Your task to perform on an android device: Show me productivity apps on the Play Store Image 0: 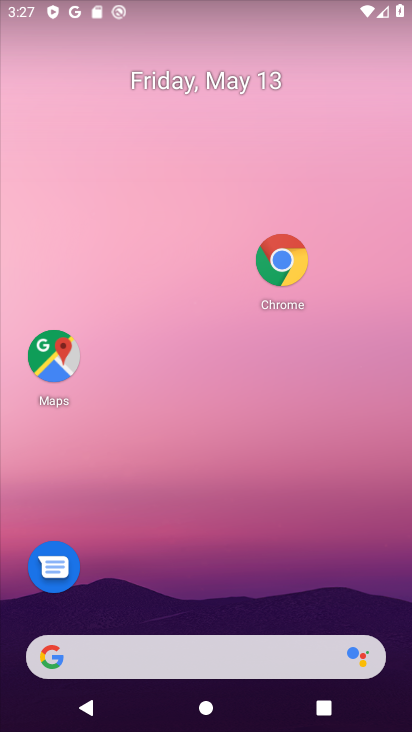
Step 0: drag from (274, 538) to (225, 58)
Your task to perform on an android device: Show me productivity apps on the Play Store Image 1: 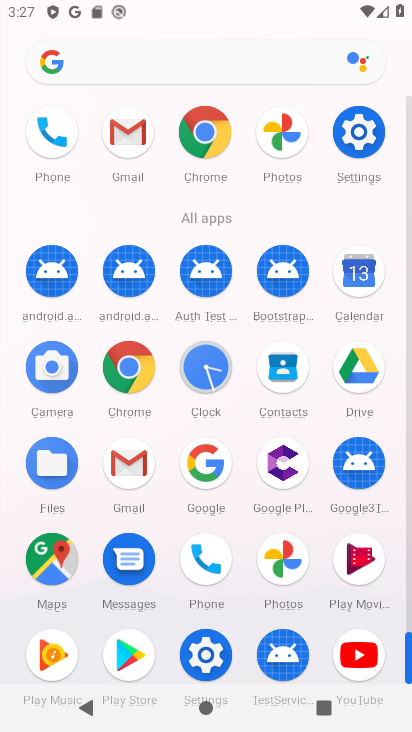
Step 1: click (135, 642)
Your task to perform on an android device: Show me productivity apps on the Play Store Image 2: 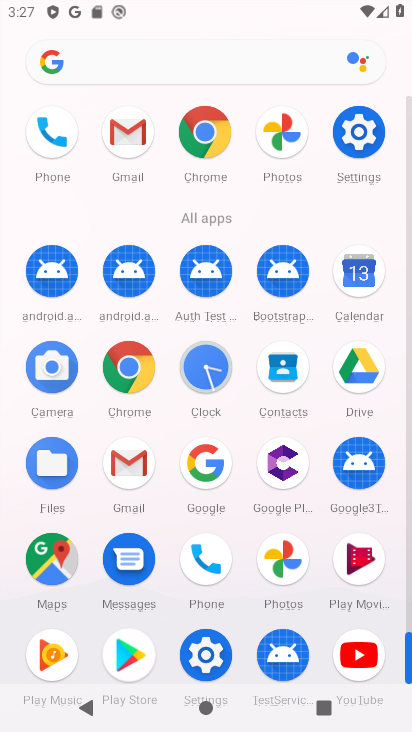
Step 2: click (134, 642)
Your task to perform on an android device: Show me productivity apps on the Play Store Image 3: 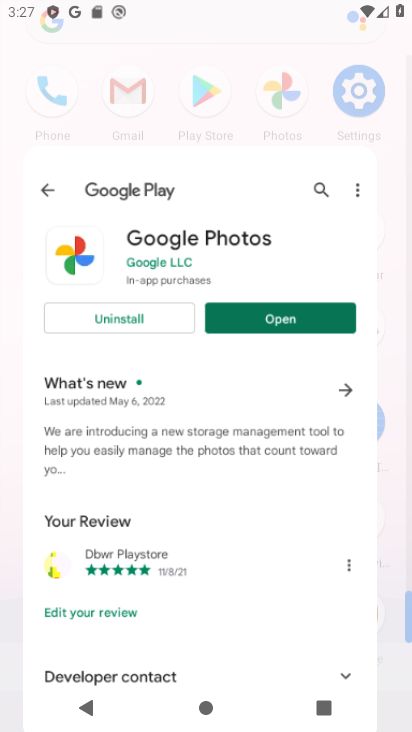
Step 3: click (134, 642)
Your task to perform on an android device: Show me productivity apps on the Play Store Image 4: 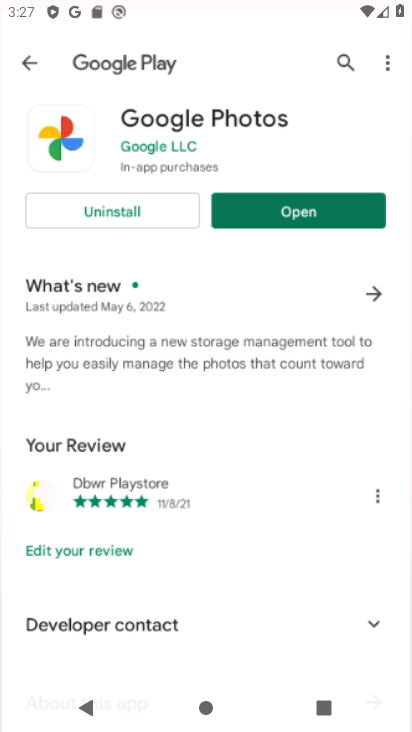
Step 4: click (134, 642)
Your task to perform on an android device: Show me productivity apps on the Play Store Image 5: 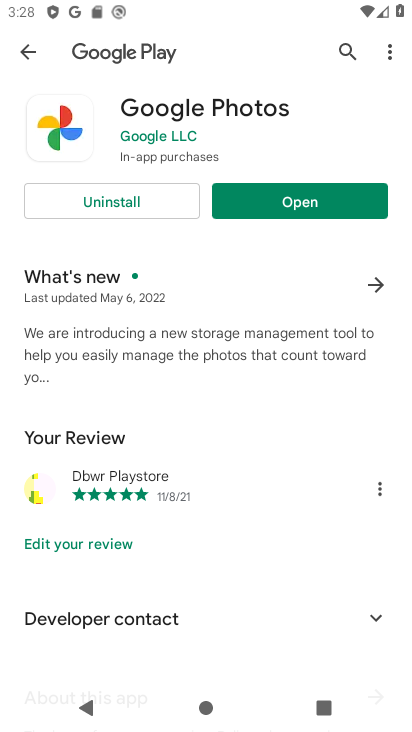
Step 5: click (304, 191)
Your task to perform on an android device: Show me productivity apps on the Play Store Image 6: 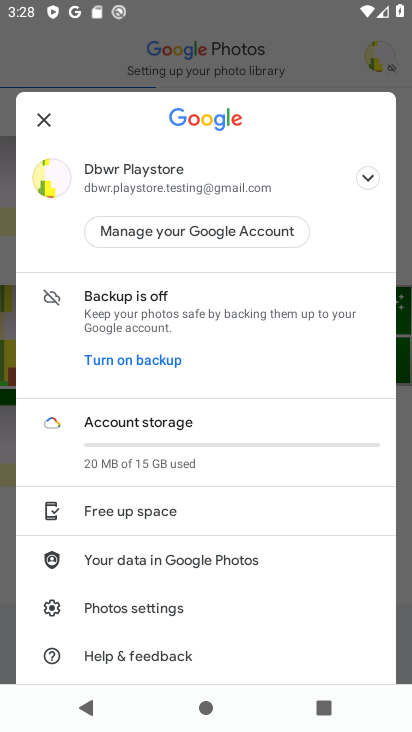
Step 6: press back button
Your task to perform on an android device: Show me productivity apps on the Play Store Image 7: 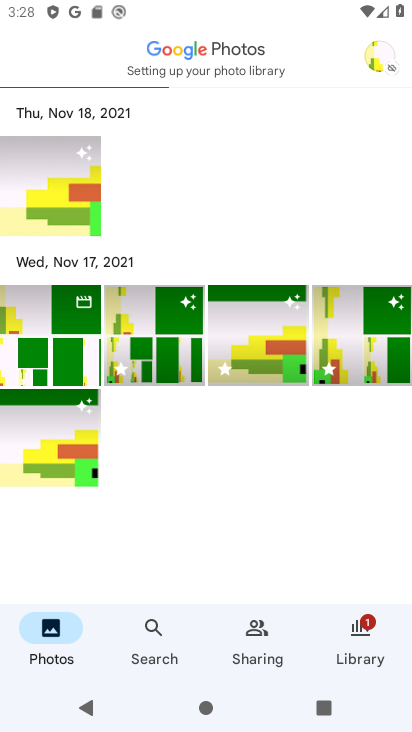
Step 7: press back button
Your task to perform on an android device: Show me productivity apps on the Play Store Image 8: 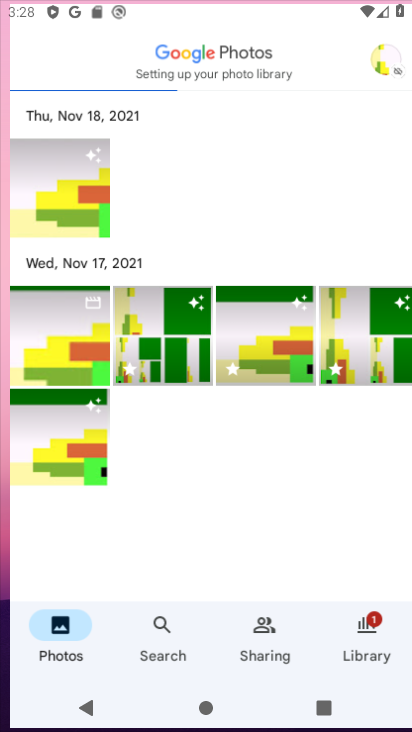
Step 8: press back button
Your task to perform on an android device: Show me productivity apps on the Play Store Image 9: 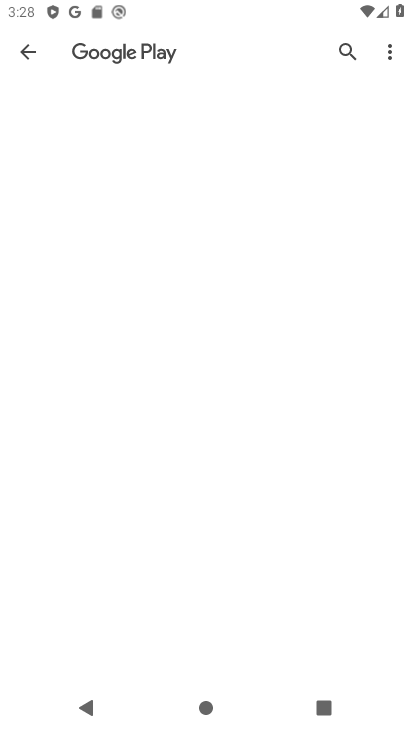
Step 9: press back button
Your task to perform on an android device: Show me productivity apps on the Play Store Image 10: 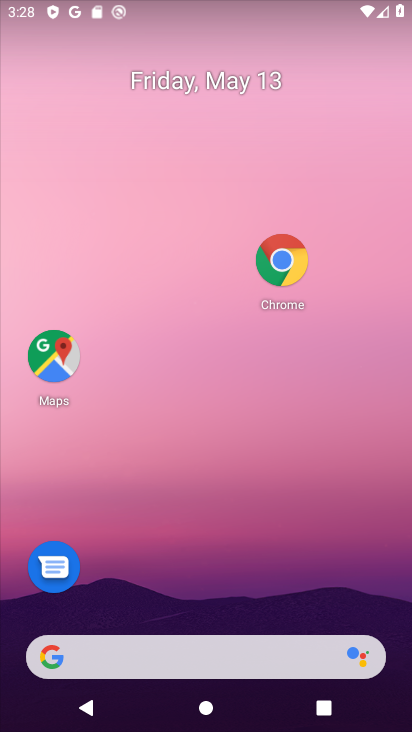
Step 10: press home button
Your task to perform on an android device: Show me productivity apps on the Play Store Image 11: 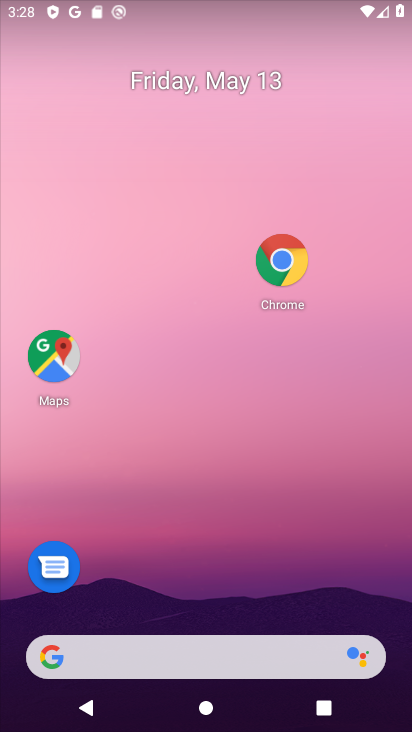
Step 11: press home button
Your task to perform on an android device: Show me productivity apps on the Play Store Image 12: 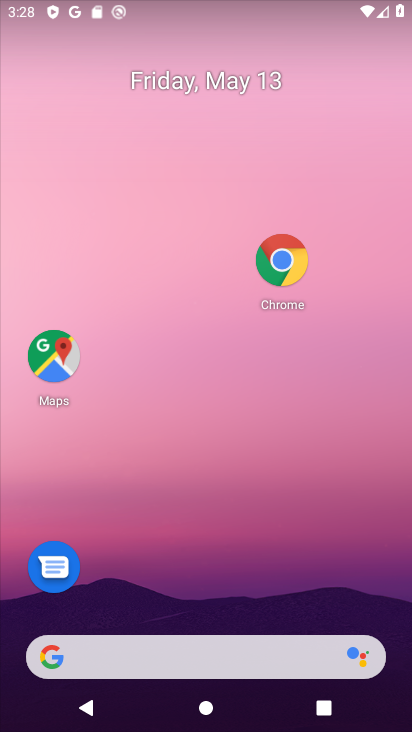
Step 12: drag from (295, 573) to (140, 53)
Your task to perform on an android device: Show me productivity apps on the Play Store Image 13: 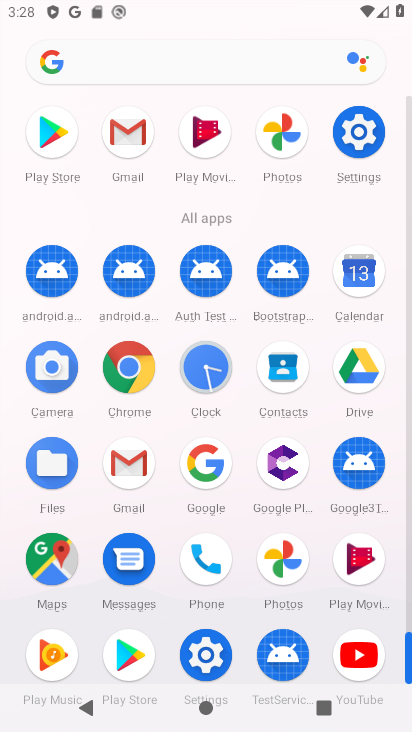
Step 13: click (146, 644)
Your task to perform on an android device: Show me productivity apps on the Play Store Image 14: 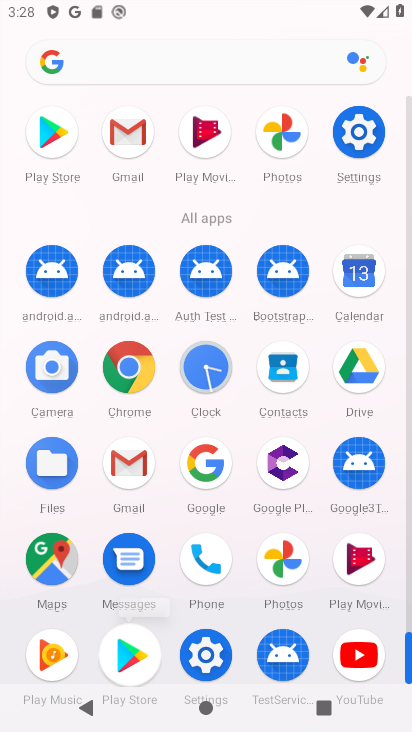
Step 14: click (135, 658)
Your task to perform on an android device: Show me productivity apps on the Play Store Image 15: 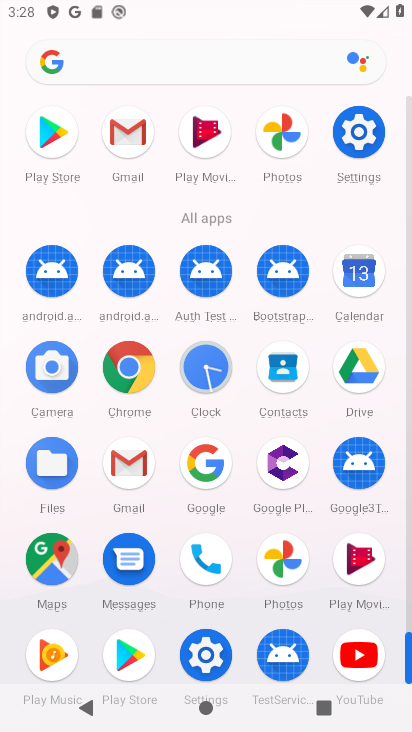
Step 15: click (135, 658)
Your task to perform on an android device: Show me productivity apps on the Play Store Image 16: 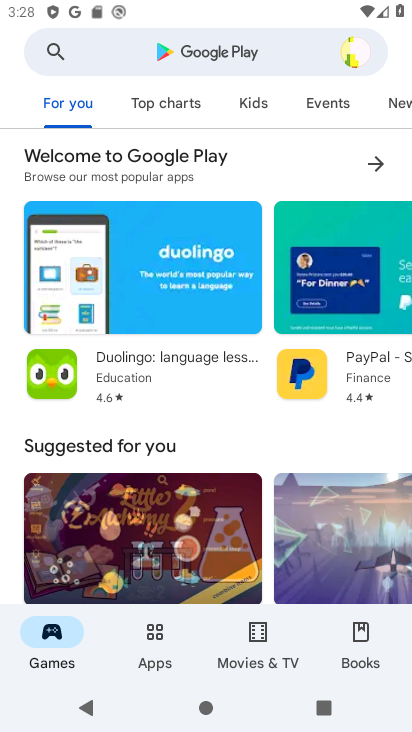
Step 16: click (124, 46)
Your task to perform on an android device: Show me productivity apps on the Play Store Image 17: 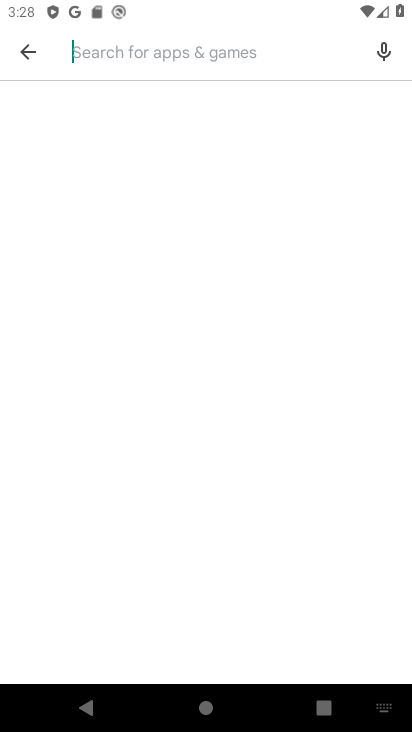
Step 17: type "productivity apps"
Your task to perform on an android device: Show me productivity apps on the Play Store Image 18: 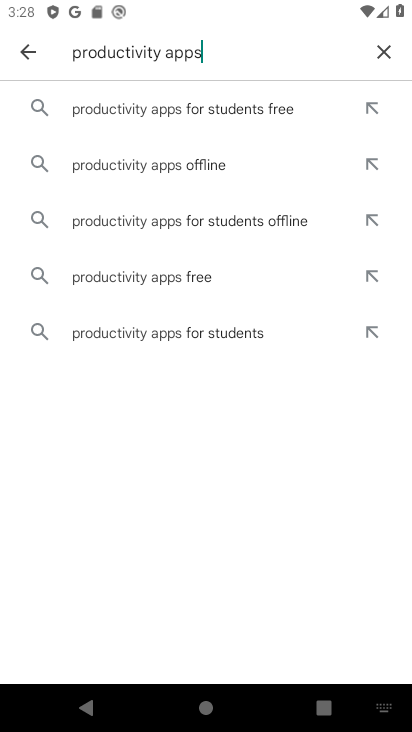
Step 18: click (196, 109)
Your task to perform on an android device: Show me productivity apps on the Play Store Image 19: 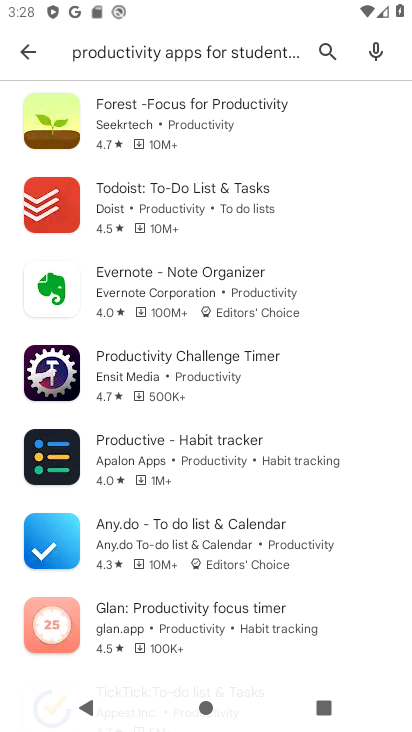
Step 19: task complete